Your task to perform on an android device: turn on the 12-hour format for clock Image 0: 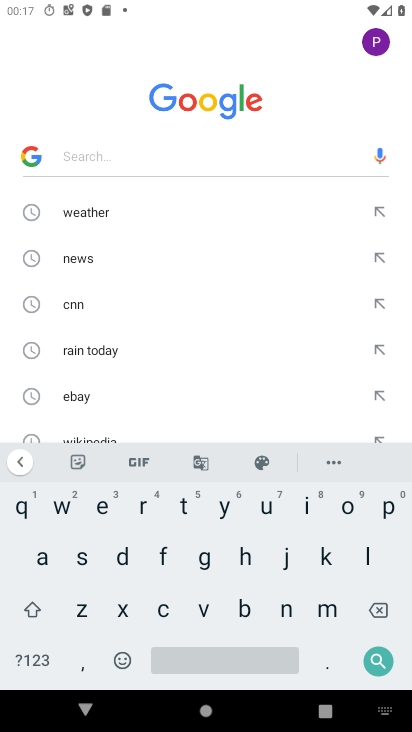
Step 0: press home button
Your task to perform on an android device: turn on the 12-hour format for clock Image 1: 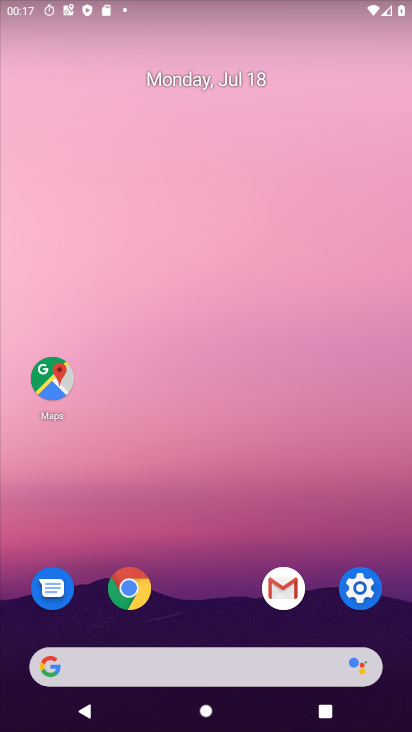
Step 1: drag from (247, 465) to (180, 145)
Your task to perform on an android device: turn on the 12-hour format for clock Image 2: 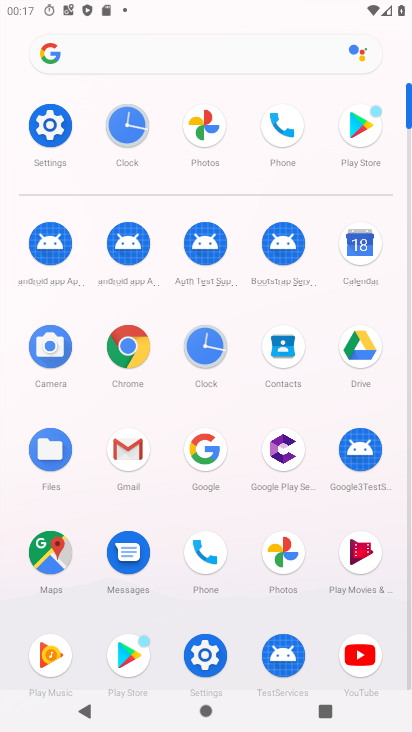
Step 2: click (213, 350)
Your task to perform on an android device: turn on the 12-hour format for clock Image 3: 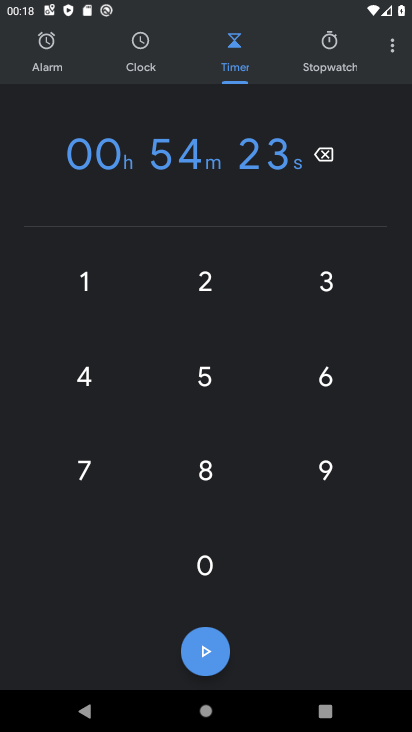
Step 3: click (396, 47)
Your task to perform on an android device: turn on the 12-hour format for clock Image 4: 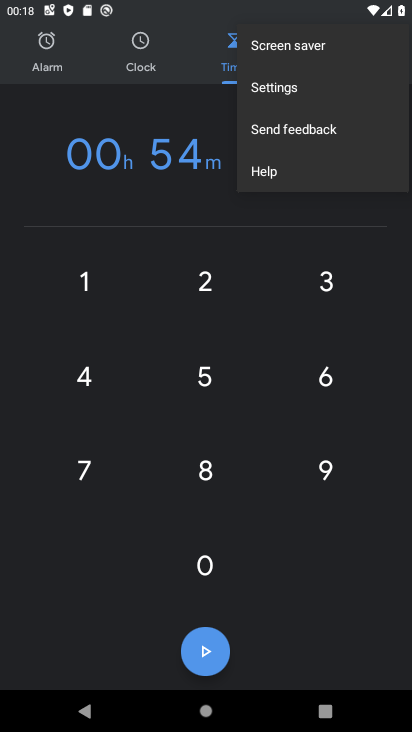
Step 4: click (284, 97)
Your task to perform on an android device: turn on the 12-hour format for clock Image 5: 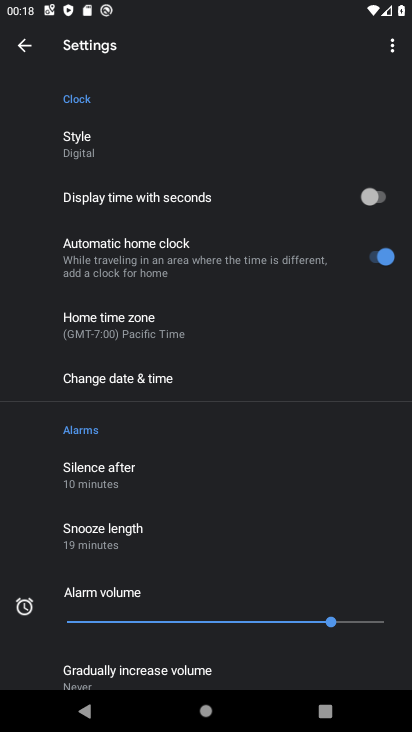
Step 5: click (157, 381)
Your task to perform on an android device: turn on the 12-hour format for clock Image 6: 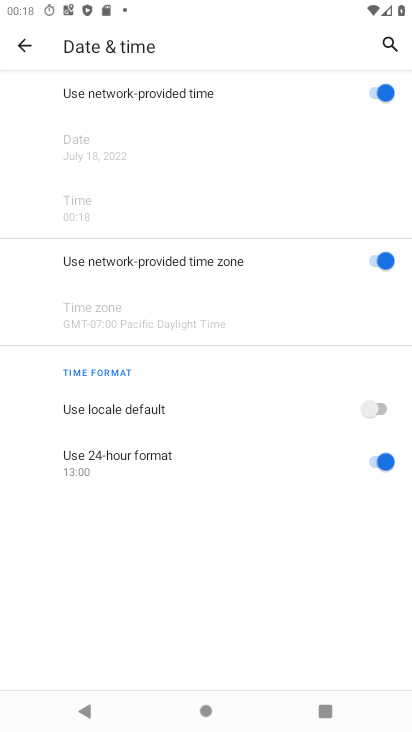
Step 6: click (375, 467)
Your task to perform on an android device: turn on the 12-hour format for clock Image 7: 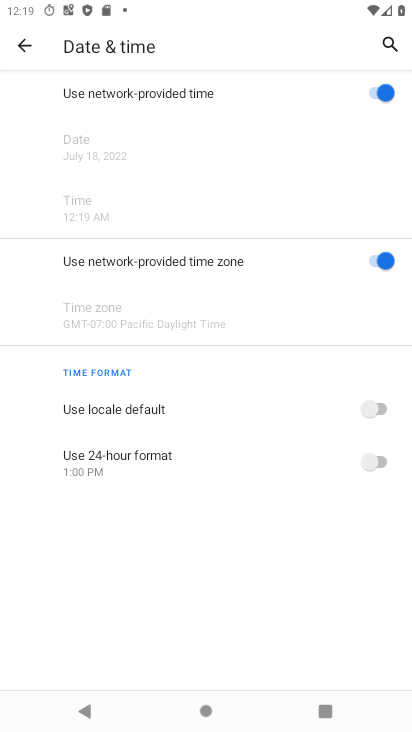
Step 7: task complete